Your task to perform on an android device: search for starred emails in the gmail app Image 0: 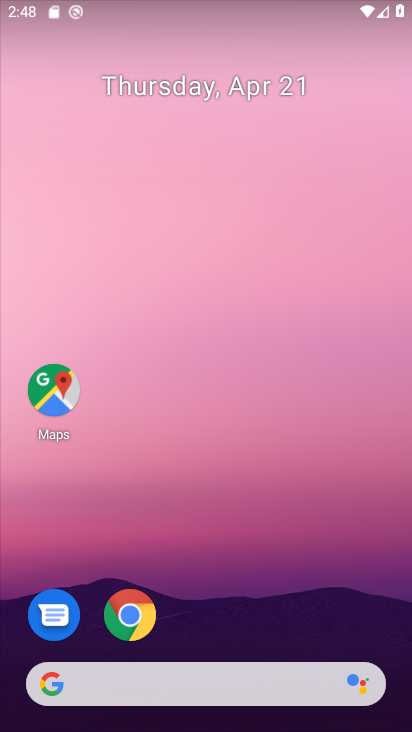
Step 0: drag from (218, 639) to (240, 94)
Your task to perform on an android device: search for starred emails in the gmail app Image 1: 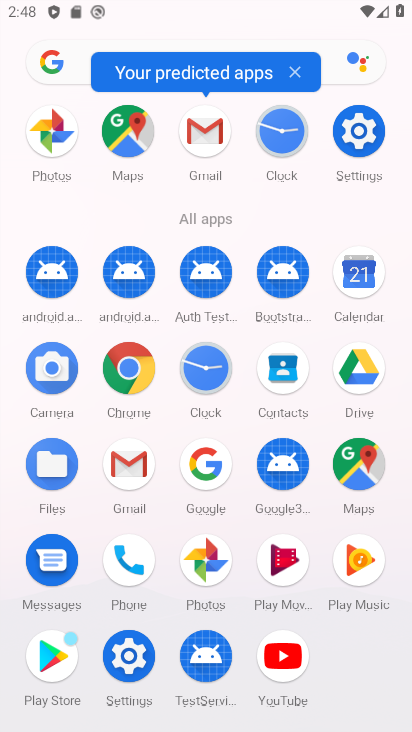
Step 1: click (125, 456)
Your task to perform on an android device: search for starred emails in the gmail app Image 2: 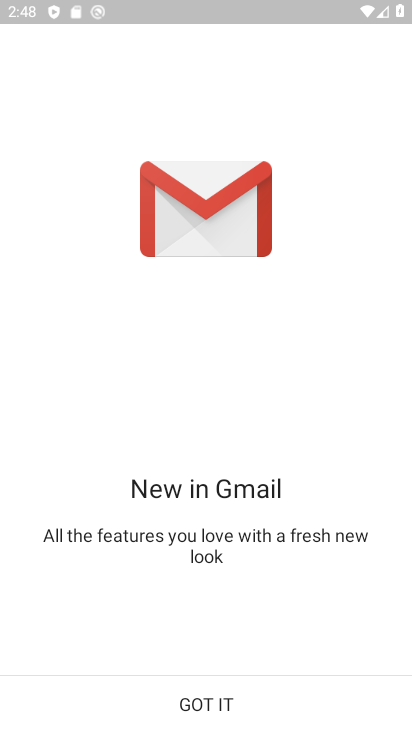
Step 2: click (211, 706)
Your task to perform on an android device: search for starred emails in the gmail app Image 3: 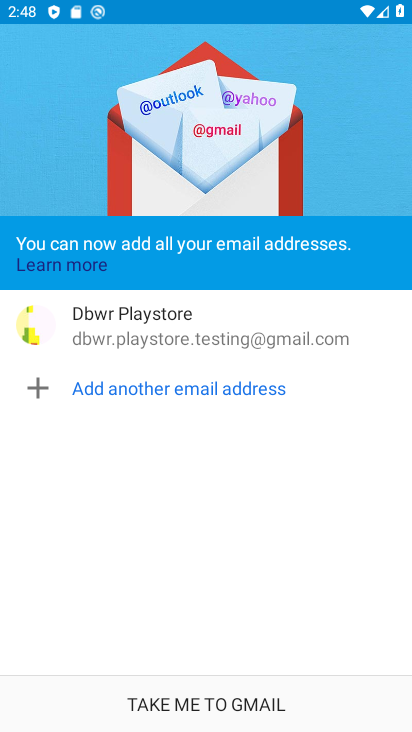
Step 3: click (200, 711)
Your task to perform on an android device: search for starred emails in the gmail app Image 4: 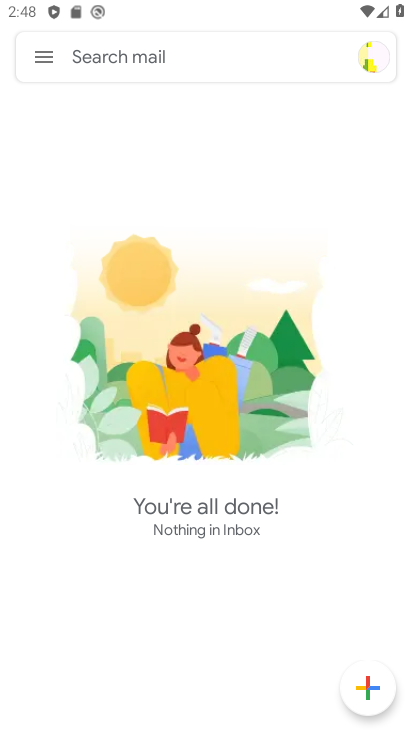
Step 4: click (42, 52)
Your task to perform on an android device: search for starred emails in the gmail app Image 5: 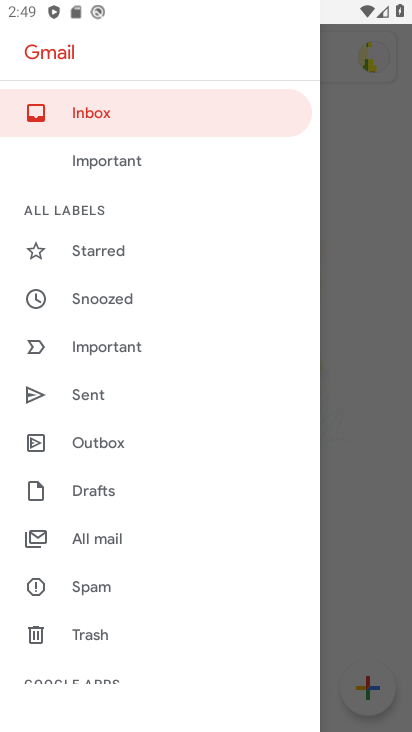
Step 5: click (130, 244)
Your task to perform on an android device: search for starred emails in the gmail app Image 6: 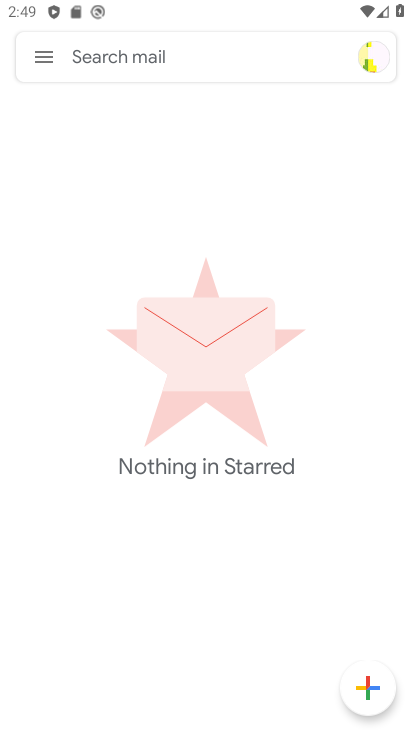
Step 6: task complete